Your task to perform on an android device: Open the web browser Image 0: 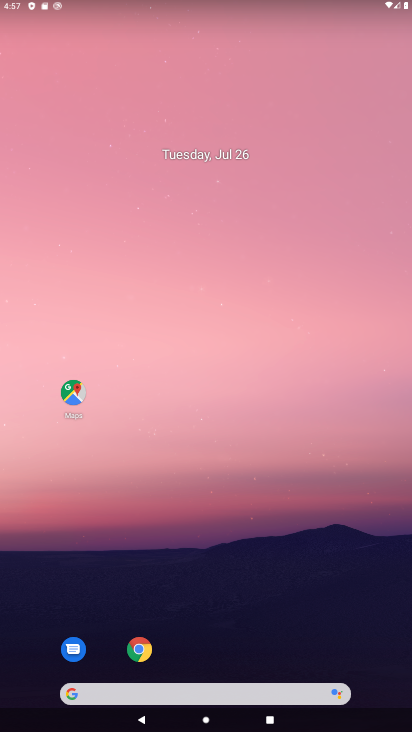
Step 0: click (140, 645)
Your task to perform on an android device: Open the web browser Image 1: 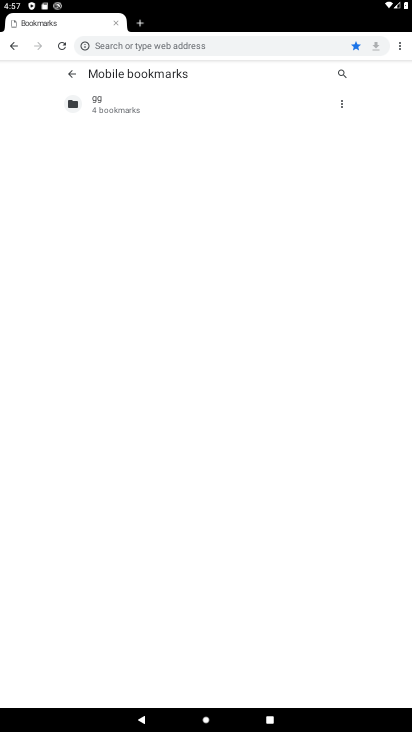
Step 1: task complete